Your task to perform on an android device: Open battery settings Image 0: 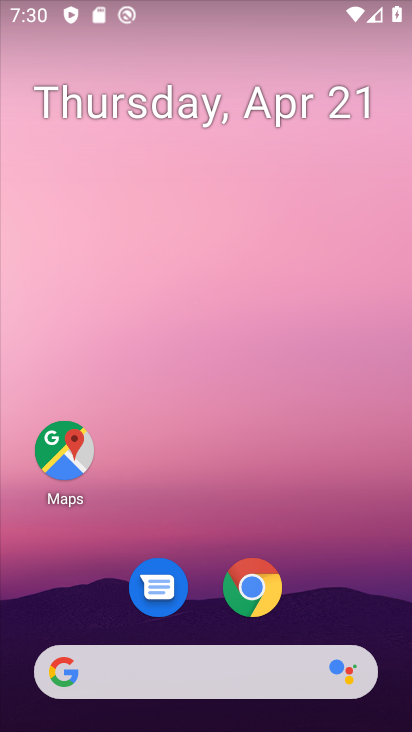
Step 0: click (258, 586)
Your task to perform on an android device: Open battery settings Image 1: 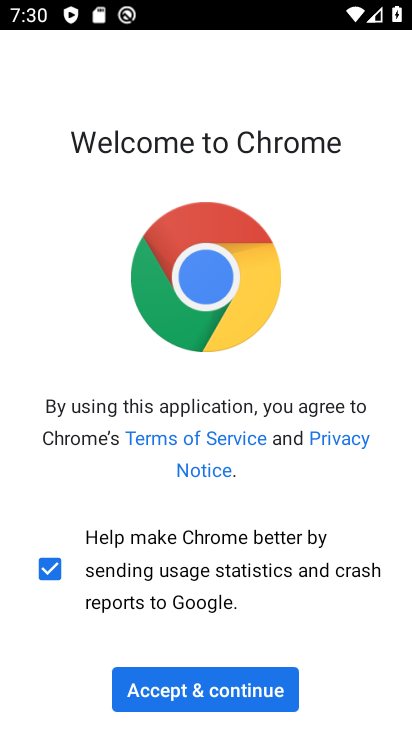
Step 1: click (224, 681)
Your task to perform on an android device: Open battery settings Image 2: 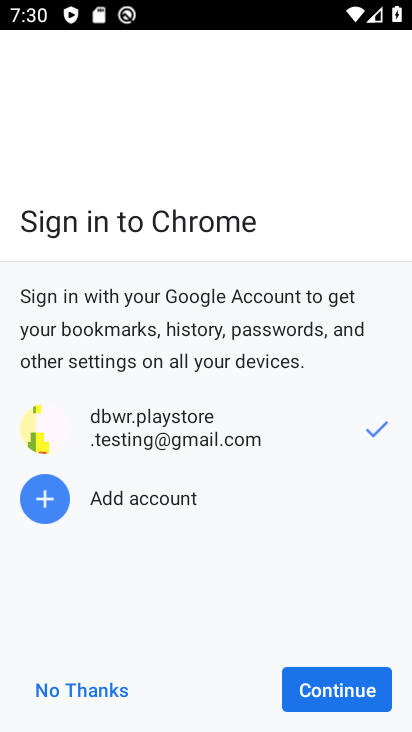
Step 2: press home button
Your task to perform on an android device: Open battery settings Image 3: 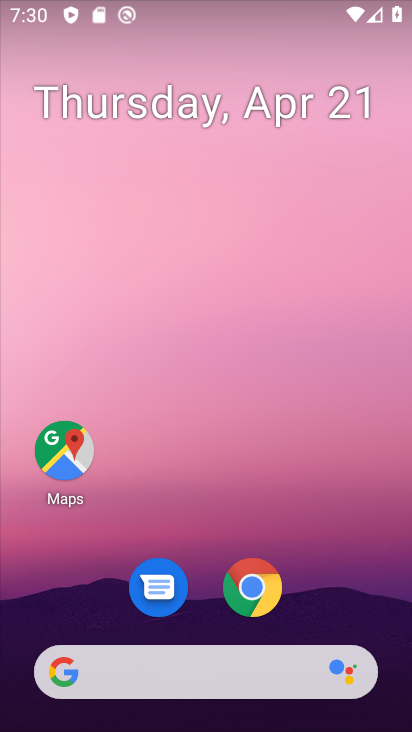
Step 3: click (357, 182)
Your task to perform on an android device: Open battery settings Image 4: 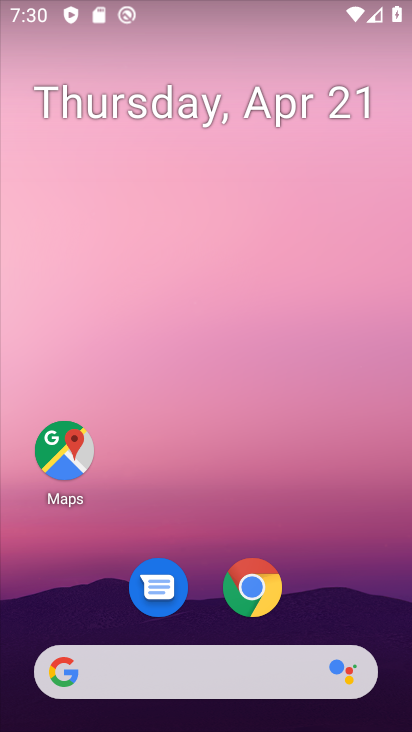
Step 4: click (353, 221)
Your task to perform on an android device: Open battery settings Image 5: 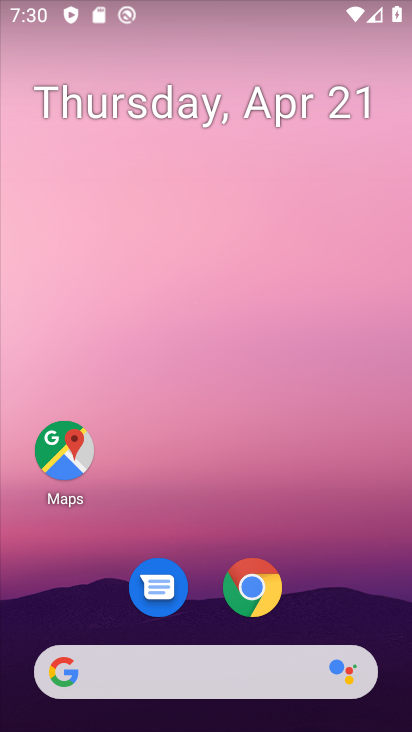
Step 5: drag from (382, 197) to (379, 110)
Your task to perform on an android device: Open battery settings Image 6: 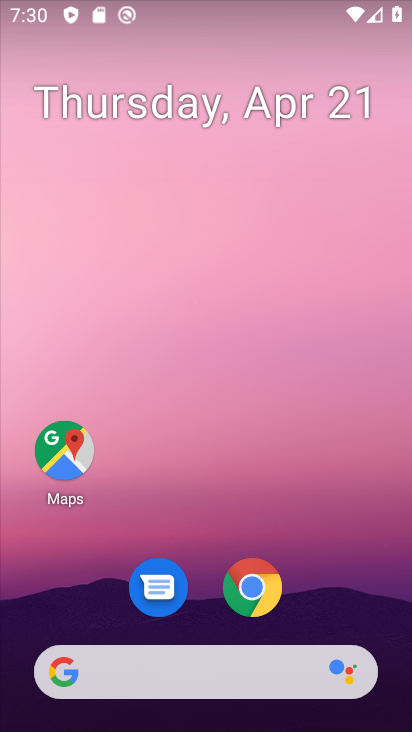
Step 6: drag from (389, 361) to (376, 74)
Your task to perform on an android device: Open battery settings Image 7: 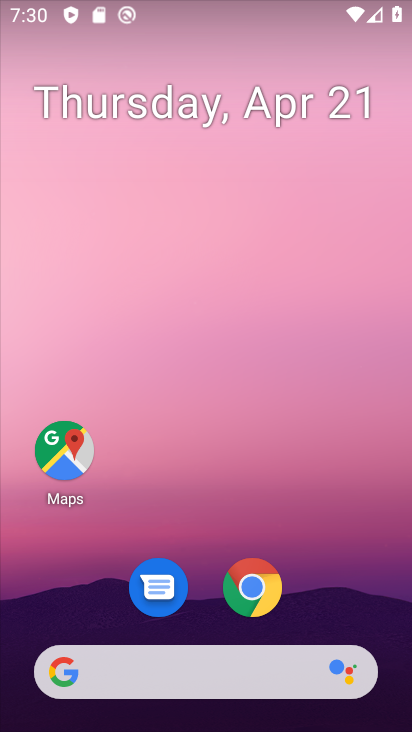
Step 7: drag from (396, 648) to (385, 119)
Your task to perform on an android device: Open battery settings Image 8: 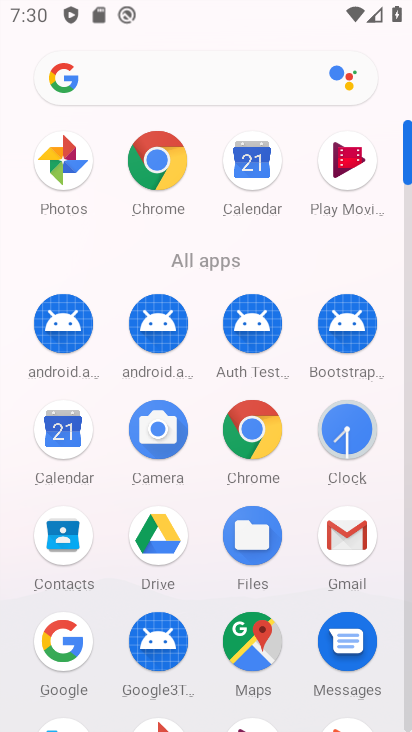
Step 8: drag from (407, 126) to (407, 65)
Your task to perform on an android device: Open battery settings Image 9: 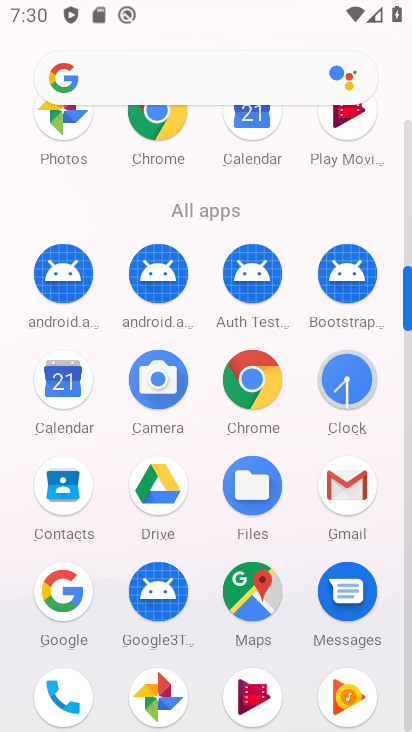
Step 9: drag from (408, 253) to (411, 201)
Your task to perform on an android device: Open battery settings Image 10: 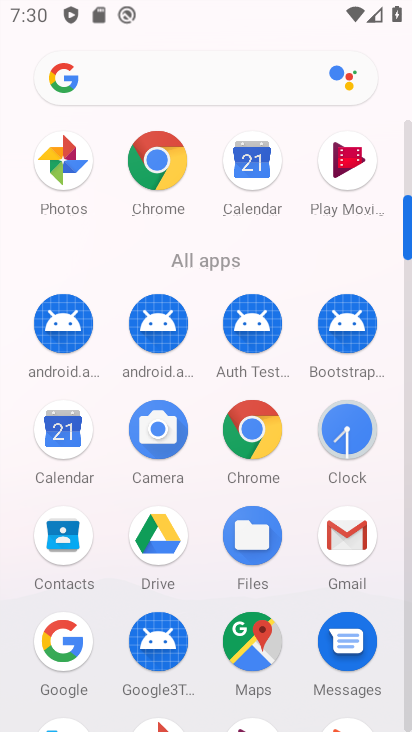
Step 10: drag from (406, 170) to (406, 116)
Your task to perform on an android device: Open battery settings Image 11: 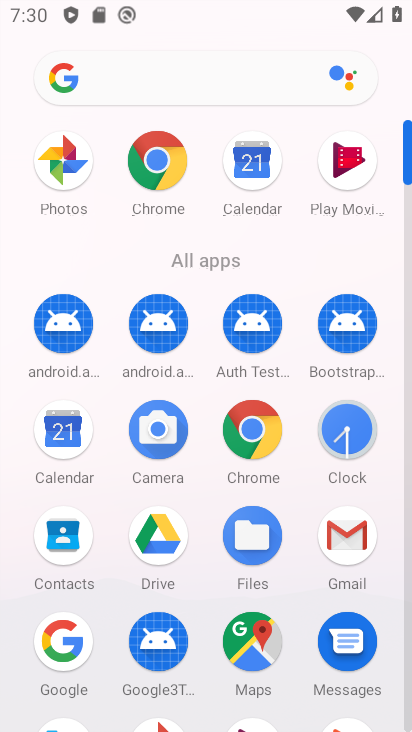
Step 11: drag from (407, 90) to (409, 33)
Your task to perform on an android device: Open battery settings Image 12: 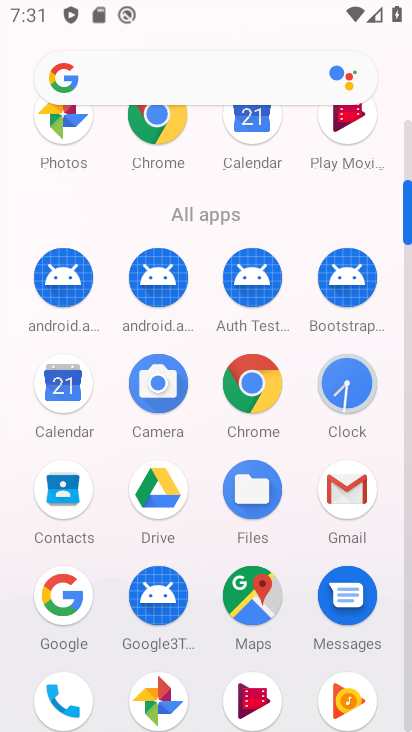
Step 12: click (407, 183)
Your task to perform on an android device: Open battery settings Image 13: 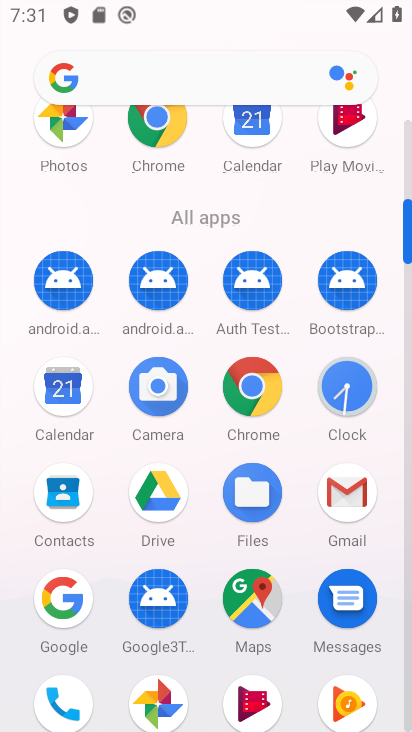
Step 13: drag from (408, 201) to (411, 103)
Your task to perform on an android device: Open battery settings Image 14: 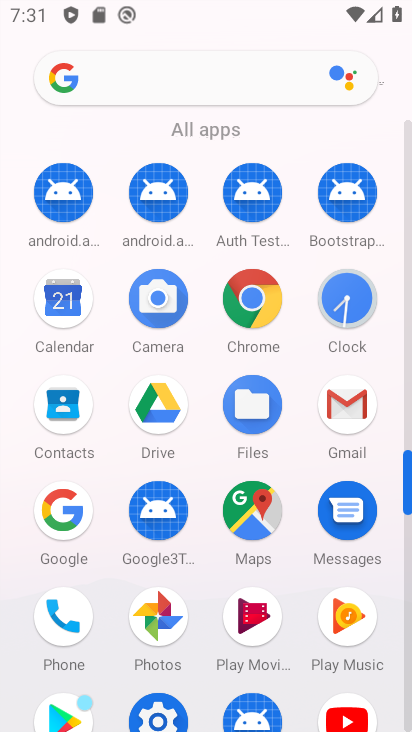
Step 14: click (161, 701)
Your task to perform on an android device: Open battery settings Image 15: 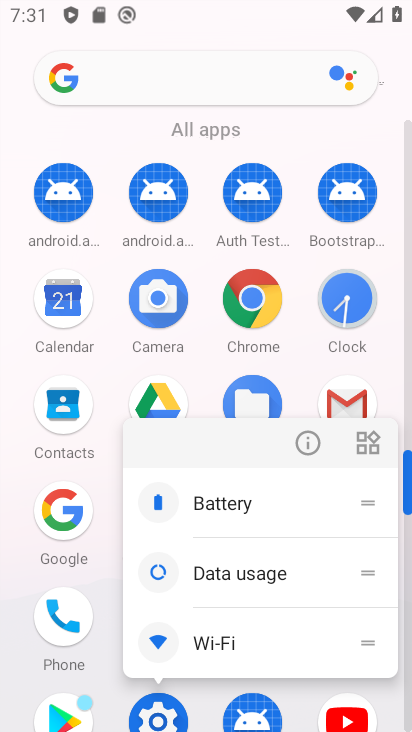
Step 15: click (160, 705)
Your task to perform on an android device: Open battery settings Image 16: 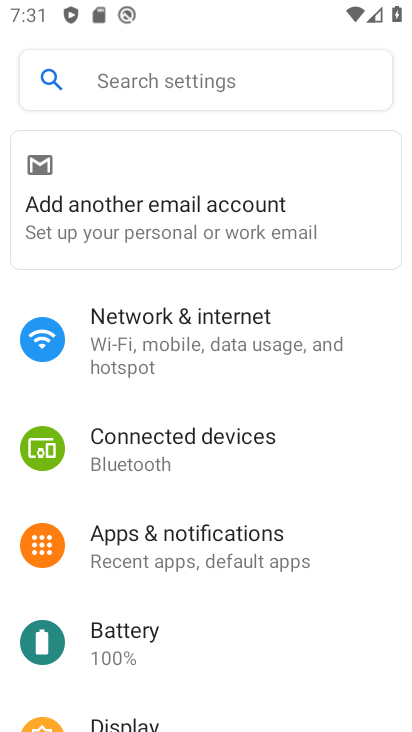
Step 16: click (114, 640)
Your task to perform on an android device: Open battery settings Image 17: 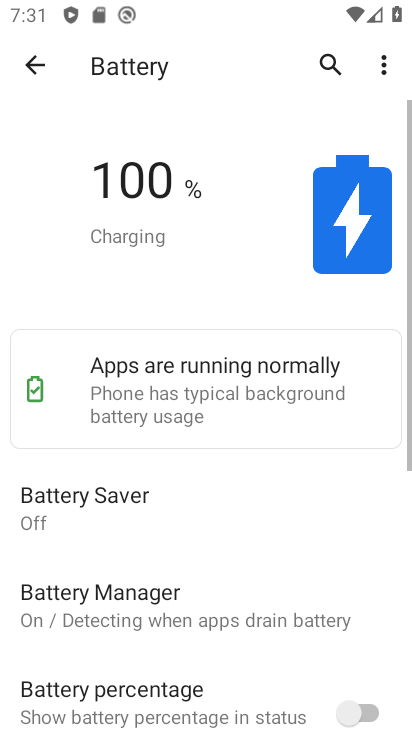
Step 17: task complete